Your task to perform on an android device: toggle translation in the chrome app Image 0: 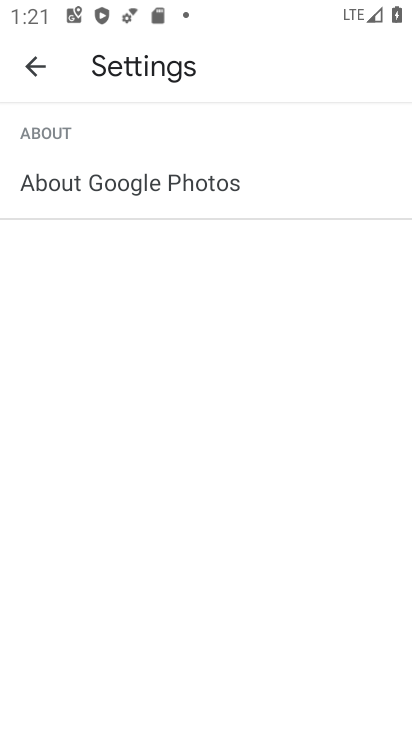
Step 0: press home button
Your task to perform on an android device: toggle translation in the chrome app Image 1: 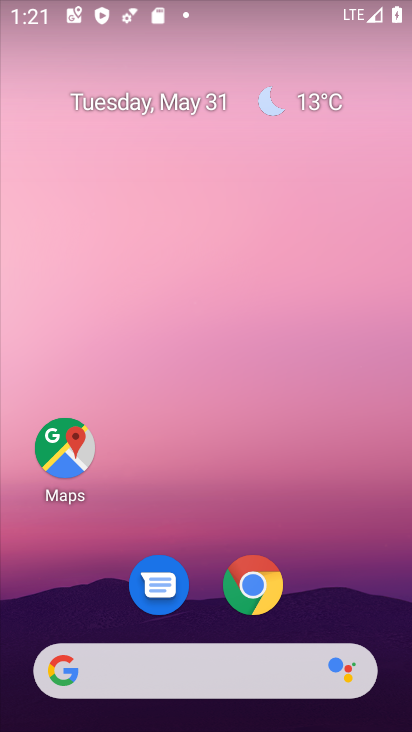
Step 1: click (256, 575)
Your task to perform on an android device: toggle translation in the chrome app Image 2: 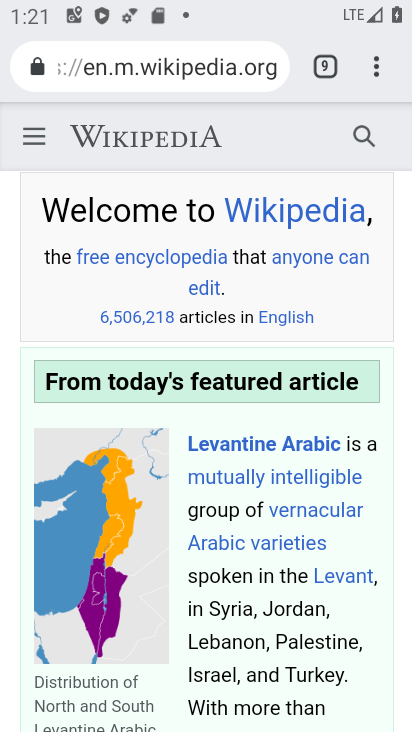
Step 2: click (371, 60)
Your task to perform on an android device: toggle translation in the chrome app Image 3: 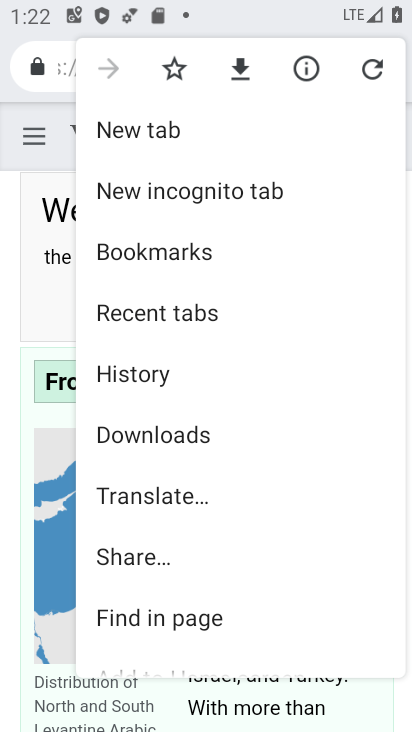
Step 3: drag from (261, 545) to (253, 178)
Your task to perform on an android device: toggle translation in the chrome app Image 4: 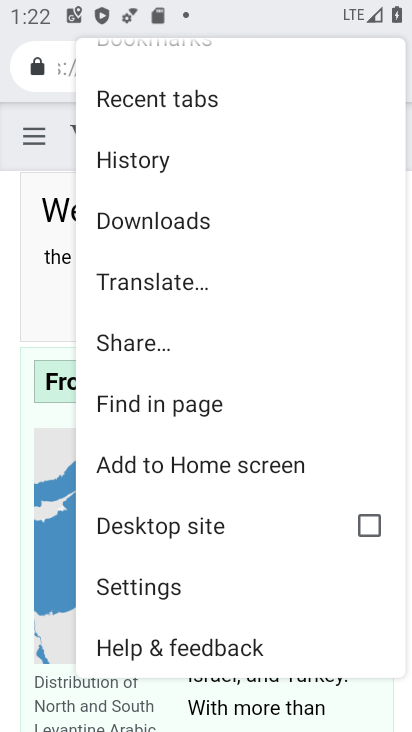
Step 4: click (210, 582)
Your task to perform on an android device: toggle translation in the chrome app Image 5: 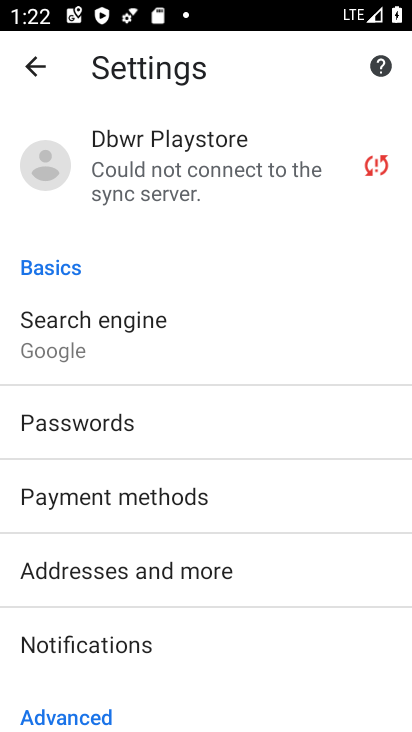
Step 5: drag from (217, 483) to (181, 84)
Your task to perform on an android device: toggle translation in the chrome app Image 6: 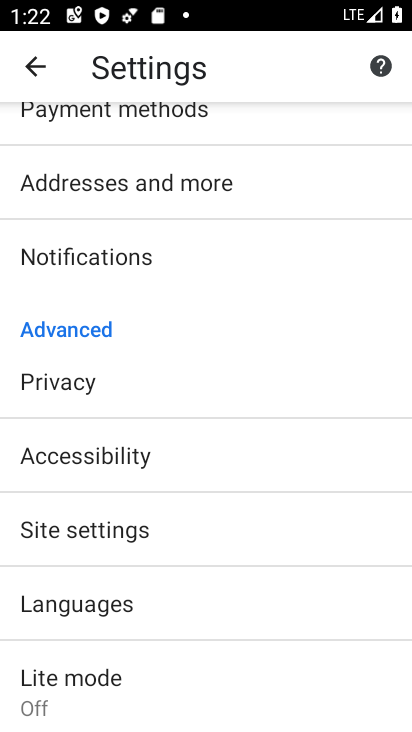
Step 6: click (199, 595)
Your task to perform on an android device: toggle translation in the chrome app Image 7: 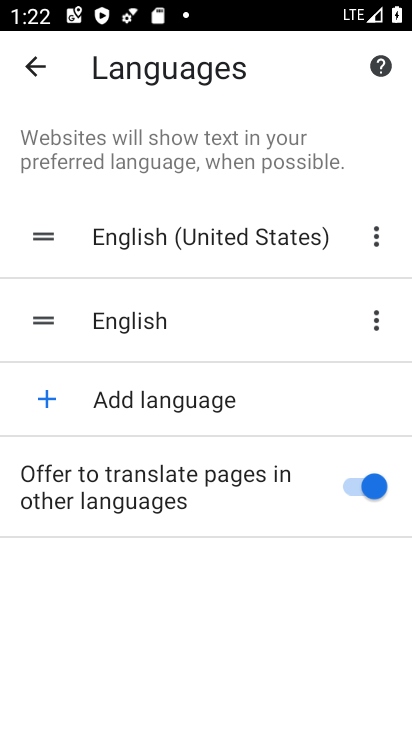
Step 7: click (350, 481)
Your task to perform on an android device: toggle translation in the chrome app Image 8: 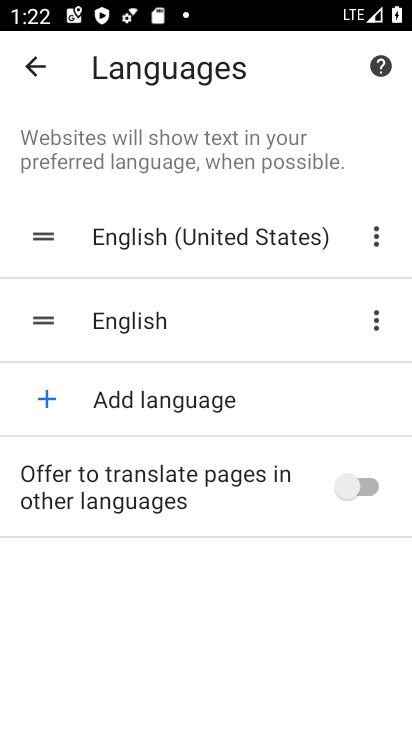
Step 8: task complete